Your task to perform on an android device: turn off sleep mode Image 0: 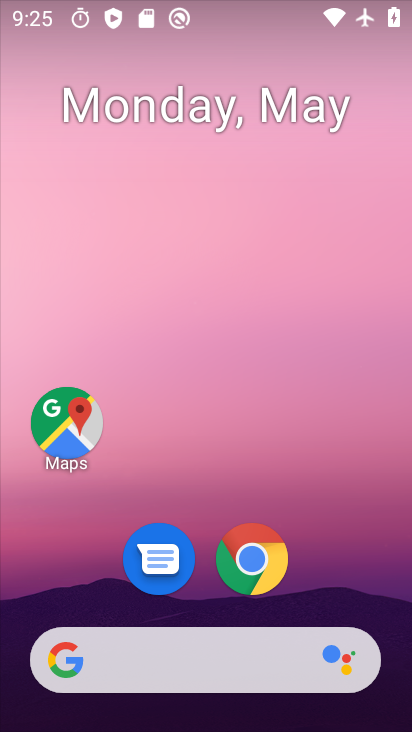
Step 0: drag from (322, 540) to (251, 51)
Your task to perform on an android device: turn off sleep mode Image 1: 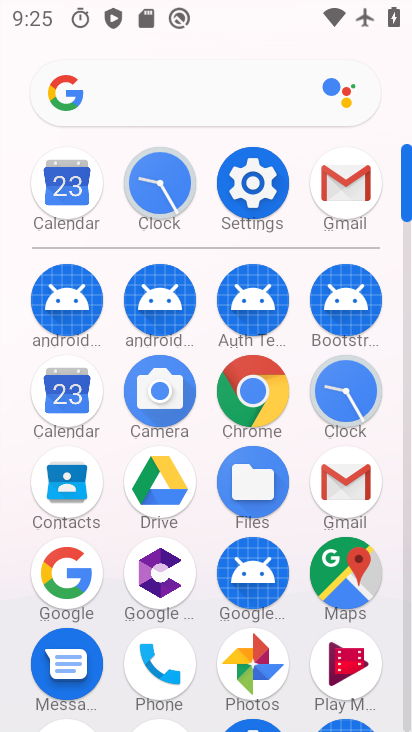
Step 1: click (252, 181)
Your task to perform on an android device: turn off sleep mode Image 2: 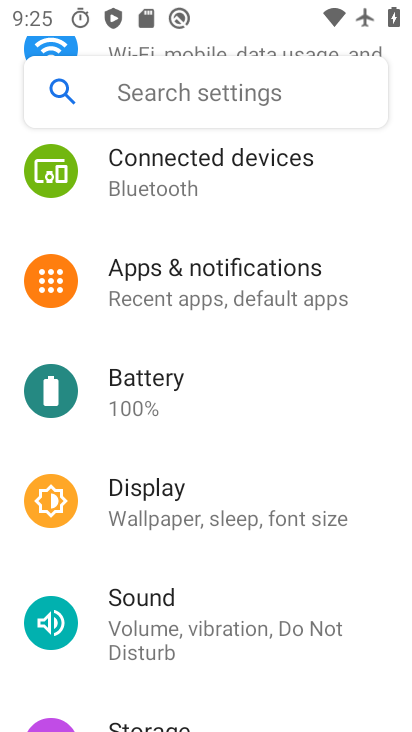
Step 2: click (212, 523)
Your task to perform on an android device: turn off sleep mode Image 3: 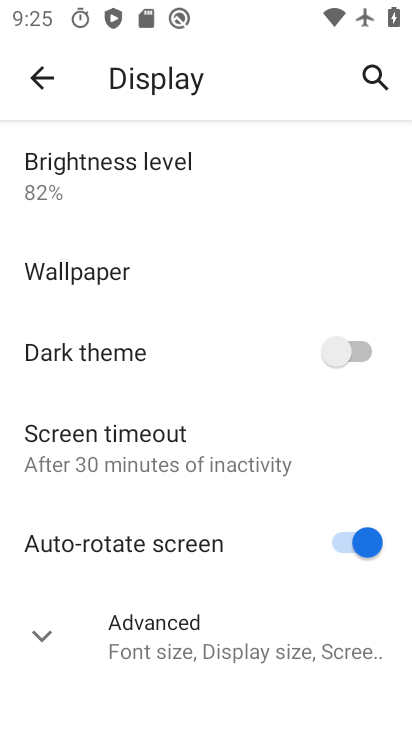
Step 3: click (201, 638)
Your task to perform on an android device: turn off sleep mode Image 4: 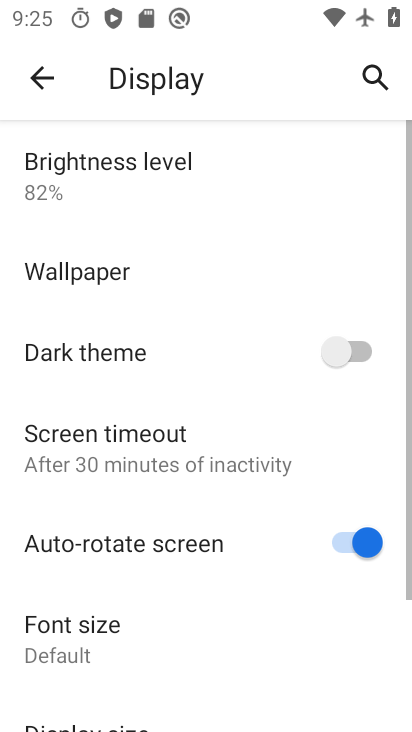
Step 4: drag from (190, 628) to (194, 244)
Your task to perform on an android device: turn off sleep mode Image 5: 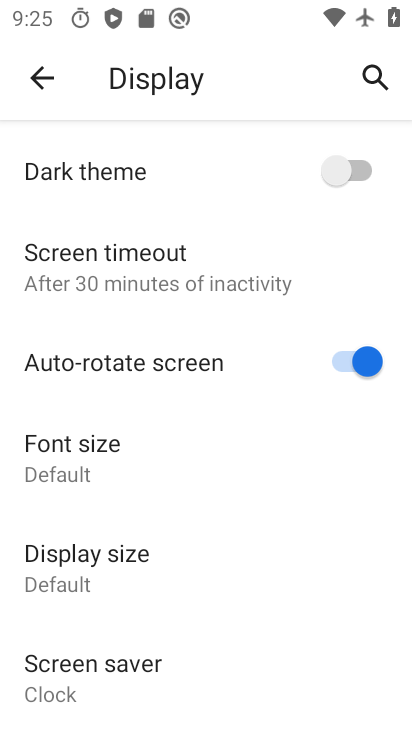
Step 5: click (42, 66)
Your task to perform on an android device: turn off sleep mode Image 6: 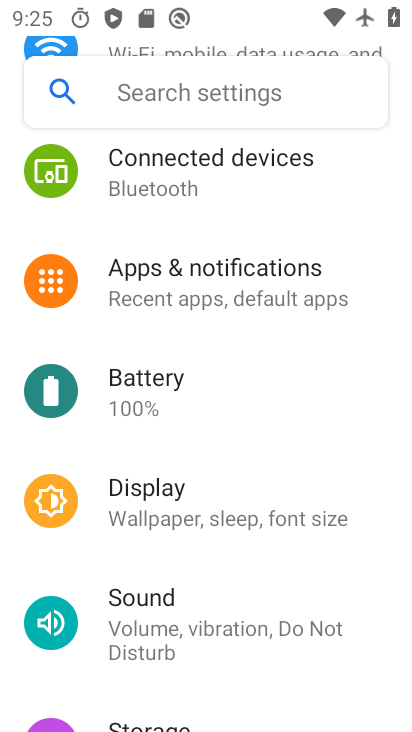
Step 6: task complete